Your task to perform on an android device: remove spam from my inbox in the gmail app Image 0: 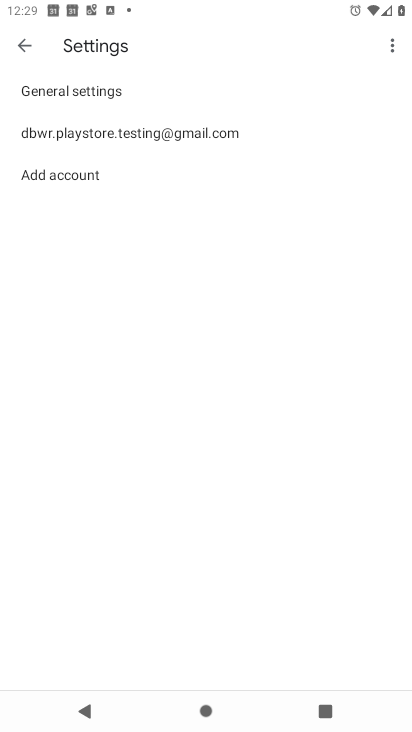
Step 0: press home button
Your task to perform on an android device: remove spam from my inbox in the gmail app Image 1: 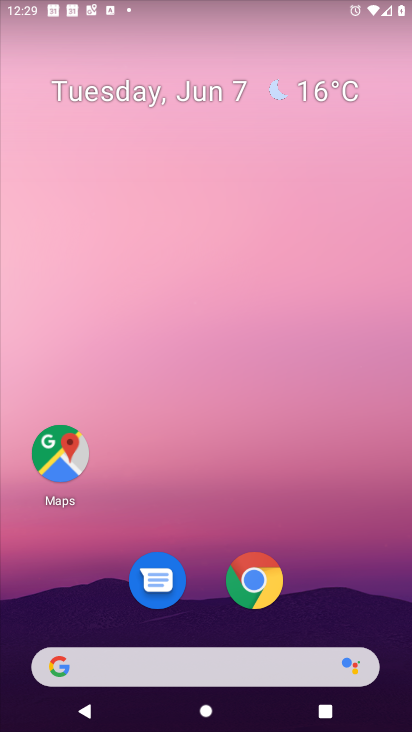
Step 1: drag from (337, 607) to (245, 104)
Your task to perform on an android device: remove spam from my inbox in the gmail app Image 2: 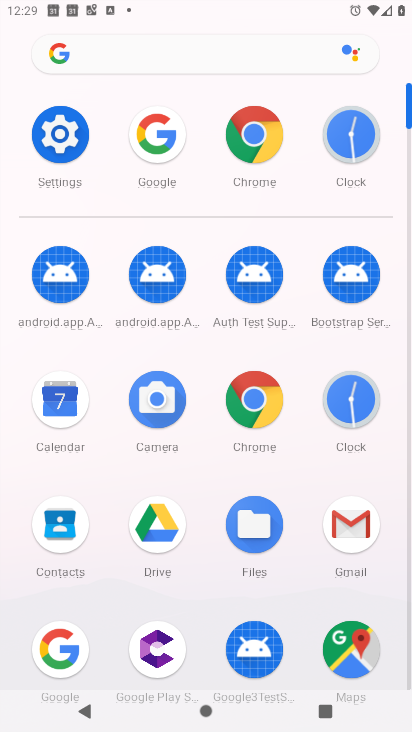
Step 2: click (357, 534)
Your task to perform on an android device: remove spam from my inbox in the gmail app Image 3: 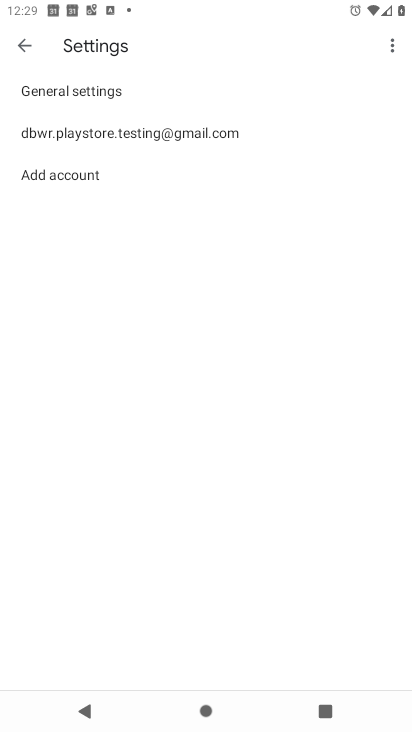
Step 3: click (16, 47)
Your task to perform on an android device: remove spam from my inbox in the gmail app Image 4: 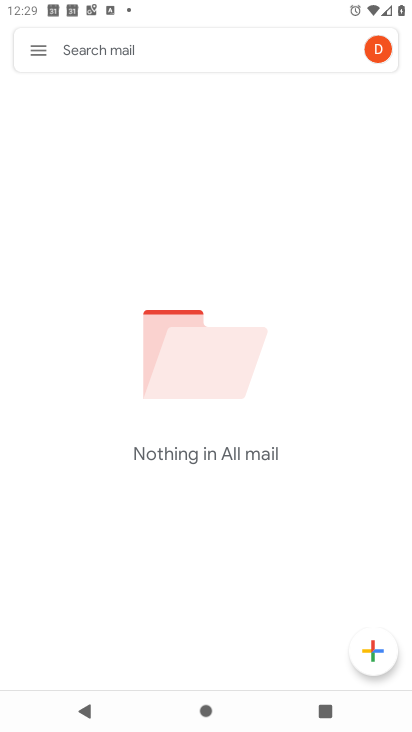
Step 4: click (16, 47)
Your task to perform on an android device: remove spam from my inbox in the gmail app Image 5: 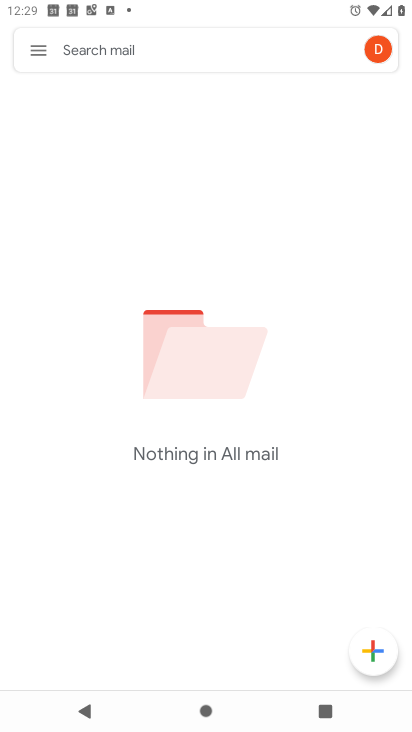
Step 5: click (35, 51)
Your task to perform on an android device: remove spam from my inbox in the gmail app Image 6: 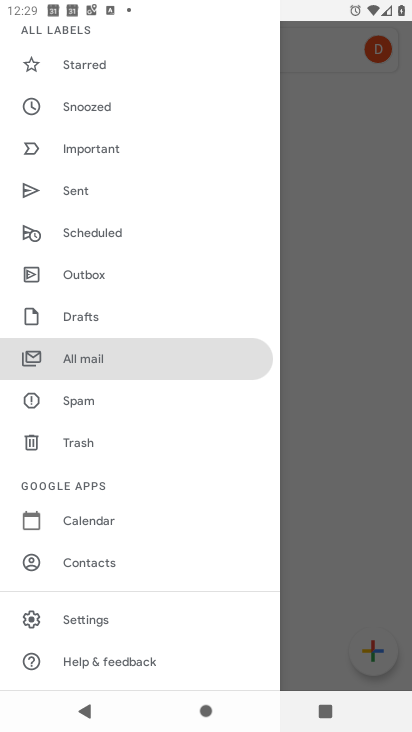
Step 6: click (94, 397)
Your task to perform on an android device: remove spam from my inbox in the gmail app Image 7: 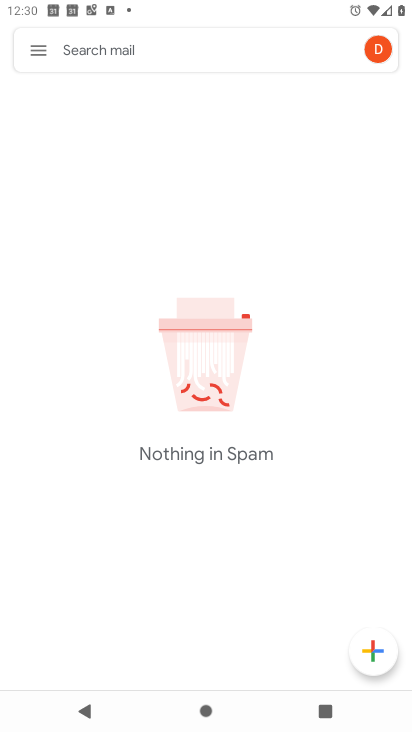
Step 7: task complete